Your task to perform on an android device: turn on priority inbox in the gmail app Image 0: 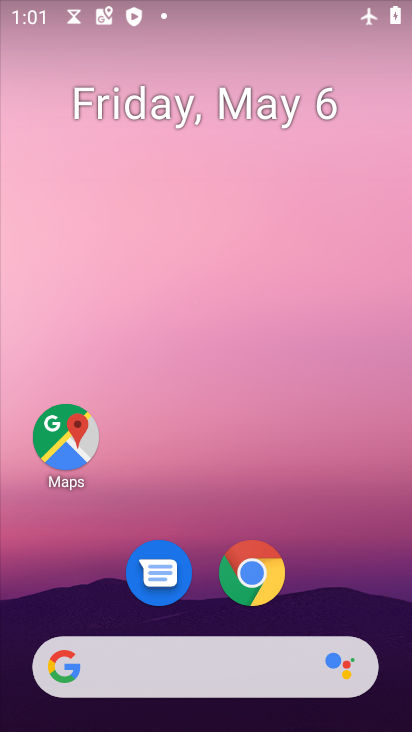
Step 0: drag from (302, 561) to (346, 225)
Your task to perform on an android device: turn on priority inbox in the gmail app Image 1: 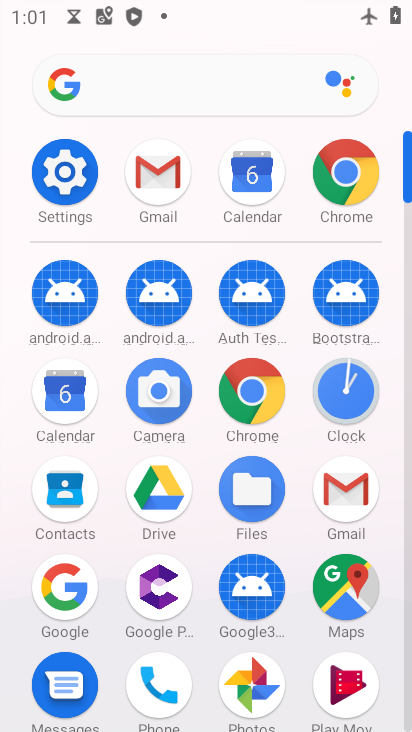
Step 1: click (150, 178)
Your task to perform on an android device: turn on priority inbox in the gmail app Image 2: 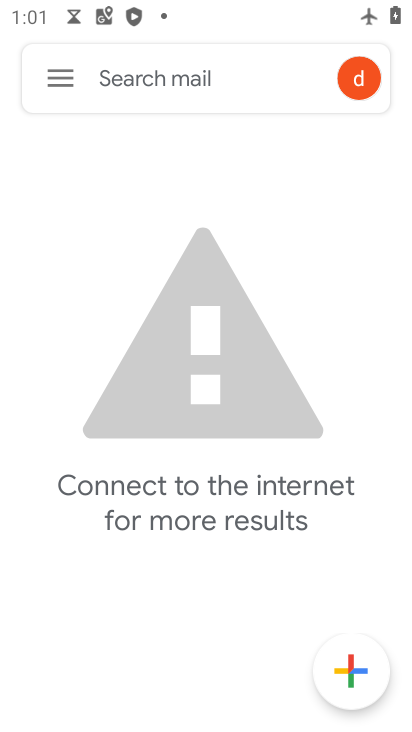
Step 2: click (61, 81)
Your task to perform on an android device: turn on priority inbox in the gmail app Image 3: 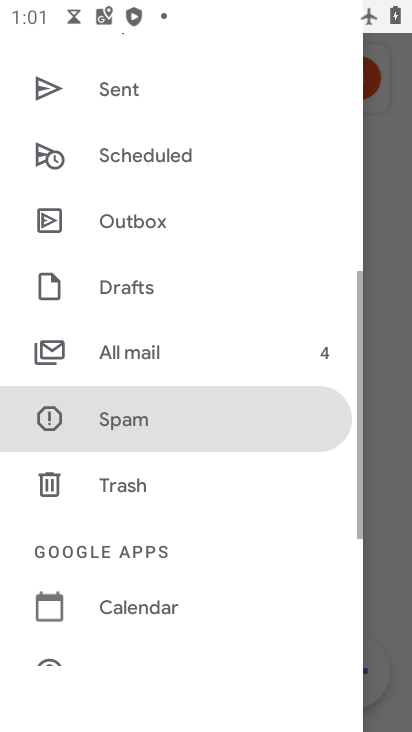
Step 3: drag from (135, 616) to (197, 155)
Your task to perform on an android device: turn on priority inbox in the gmail app Image 4: 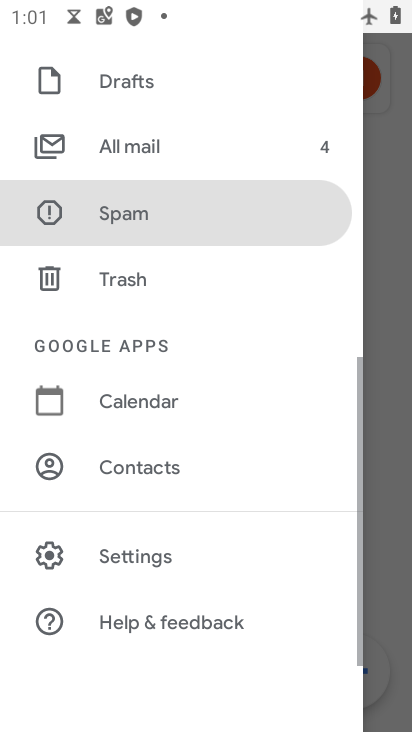
Step 4: click (157, 556)
Your task to perform on an android device: turn on priority inbox in the gmail app Image 5: 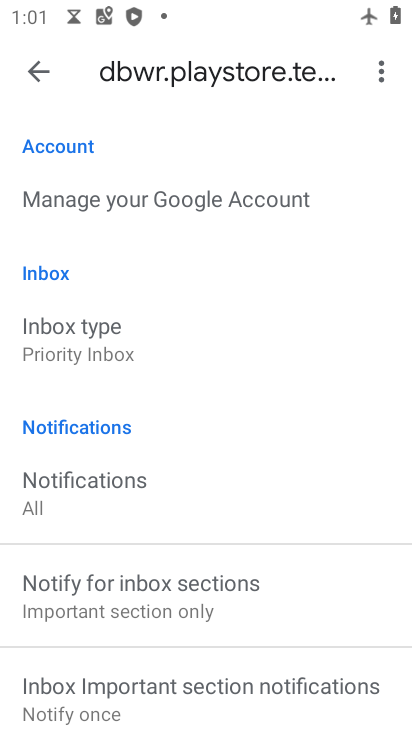
Step 5: click (103, 352)
Your task to perform on an android device: turn on priority inbox in the gmail app Image 6: 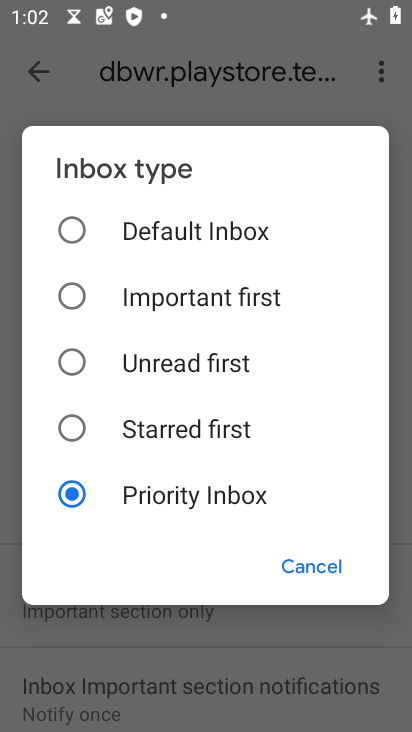
Step 6: task complete